Your task to perform on an android device: change keyboard looks Image 0: 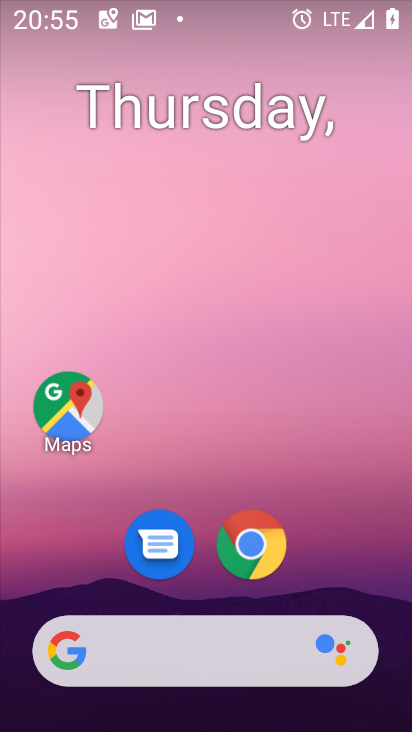
Step 0: drag from (205, 593) to (188, 142)
Your task to perform on an android device: change keyboard looks Image 1: 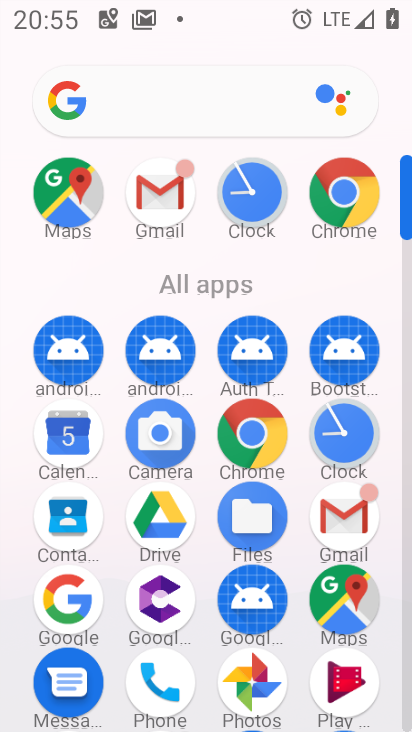
Step 1: drag from (205, 647) to (263, 140)
Your task to perform on an android device: change keyboard looks Image 2: 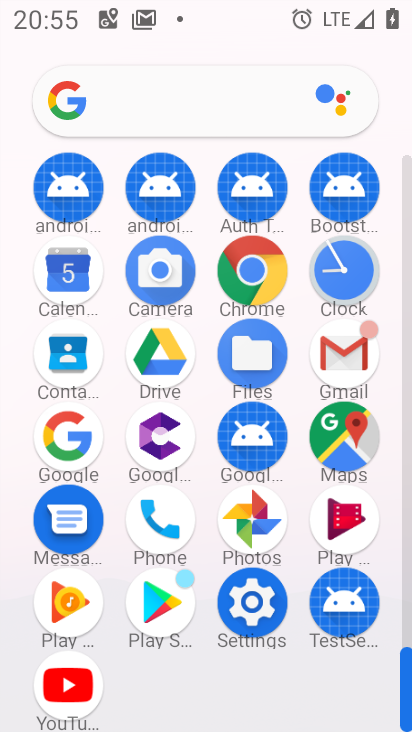
Step 2: click (227, 624)
Your task to perform on an android device: change keyboard looks Image 3: 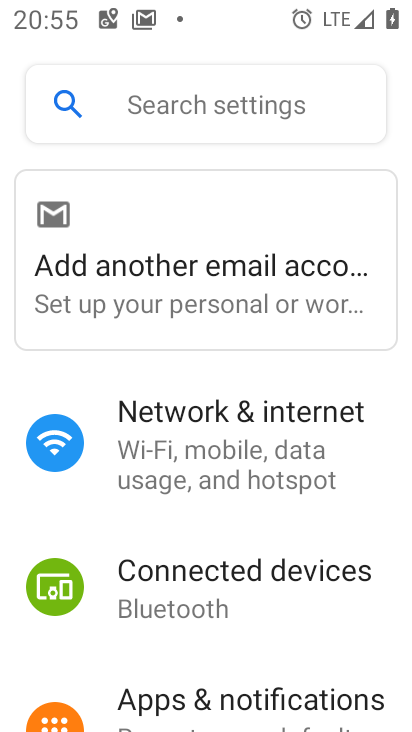
Step 3: drag from (210, 658) to (258, 95)
Your task to perform on an android device: change keyboard looks Image 4: 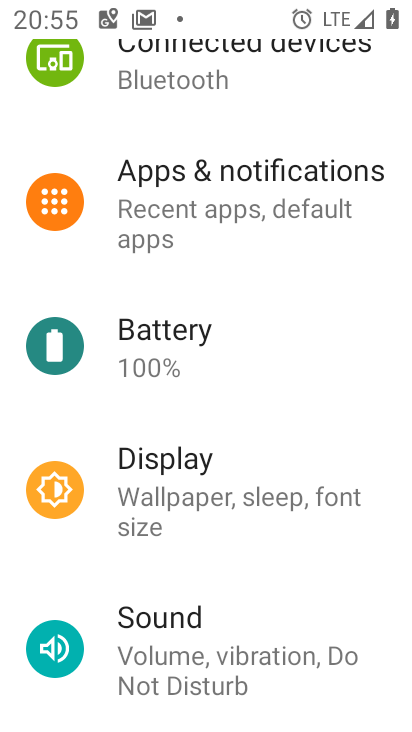
Step 4: drag from (122, 591) to (183, 235)
Your task to perform on an android device: change keyboard looks Image 5: 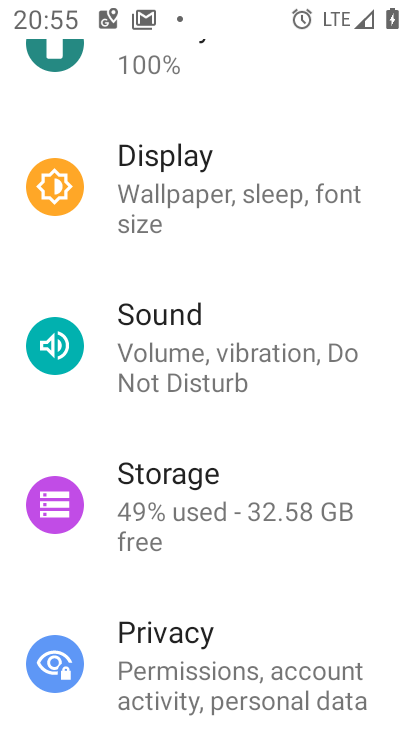
Step 5: drag from (121, 578) to (188, 237)
Your task to perform on an android device: change keyboard looks Image 6: 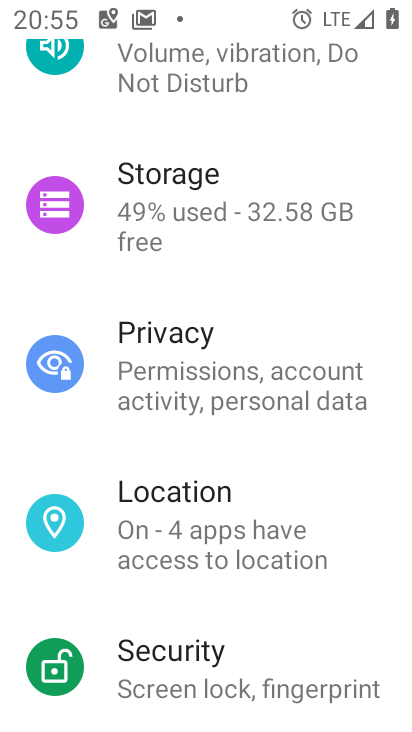
Step 6: drag from (147, 624) to (222, 266)
Your task to perform on an android device: change keyboard looks Image 7: 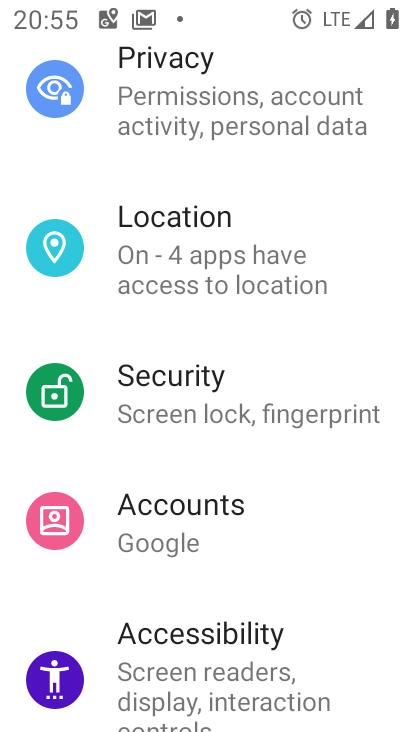
Step 7: drag from (136, 689) to (285, 187)
Your task to perform on an android device: change keyboard looks Image 8: 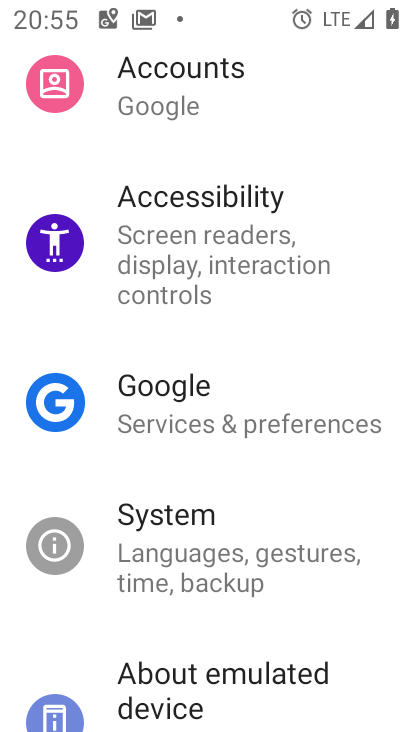
Step 8: drag from (23, 609) to (225, 161)
Your task to perform on an android device: change keyboard looks Image 9: 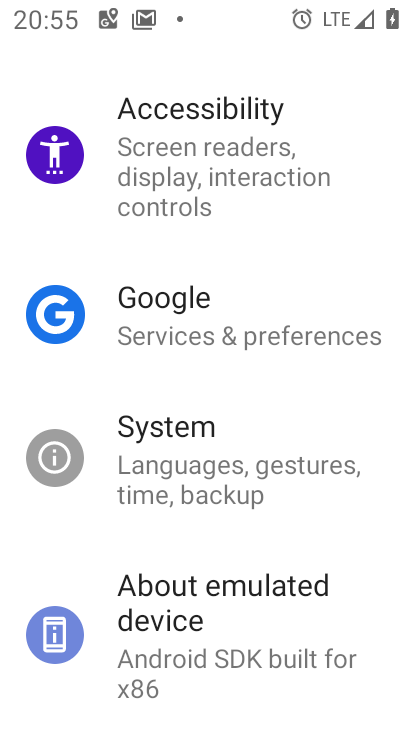
Step 9: click (152, 473)
Your task to perform on an android device: change keyboard looks Image 10: 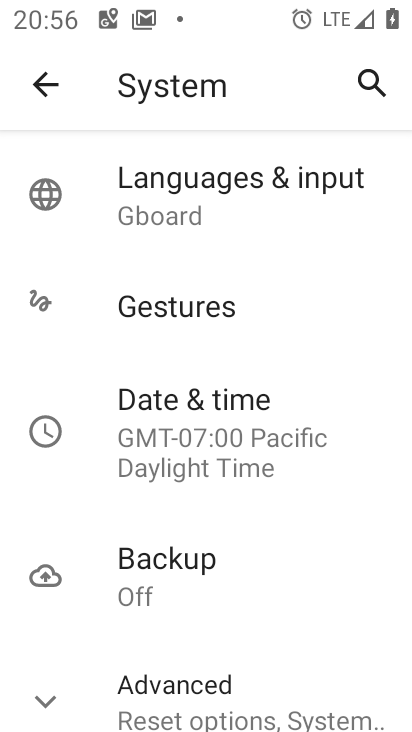
Step 10: click (226, 214)
Your task to perform on an android device: change keyboard looks Image 11: 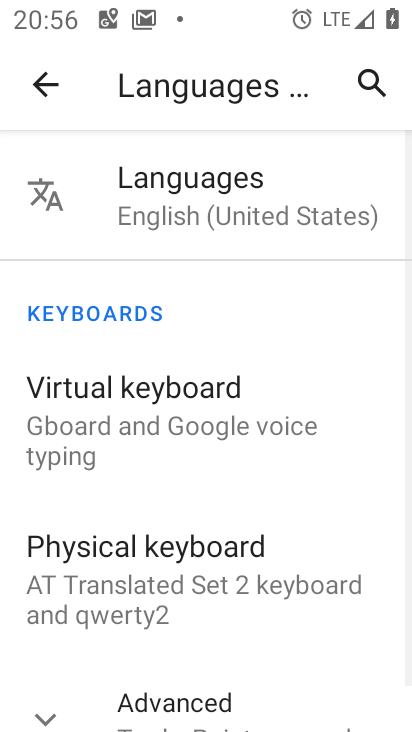
Step 11: click (157, 399)
Your task to perform on an android device: change keyboard looks Image 12: 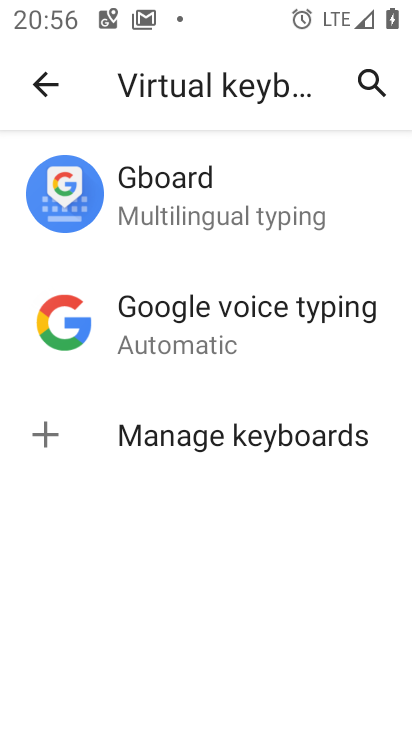
Step 12: click (194, 230)
Your task to perform on an android device: change keyboard looks Image 13: 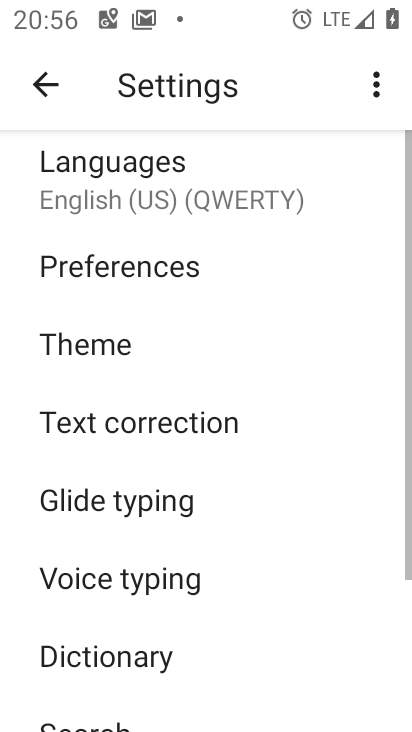
Step 13: click (138, 351)
Your task to perform on an android device: change keyboard looks Image 14: 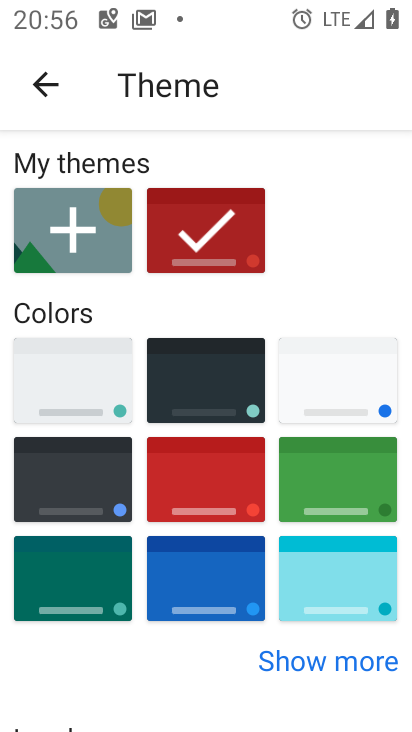
Step 14: click (296, 543)
Your task to perform on an android device: change keyboard looks Image 15: 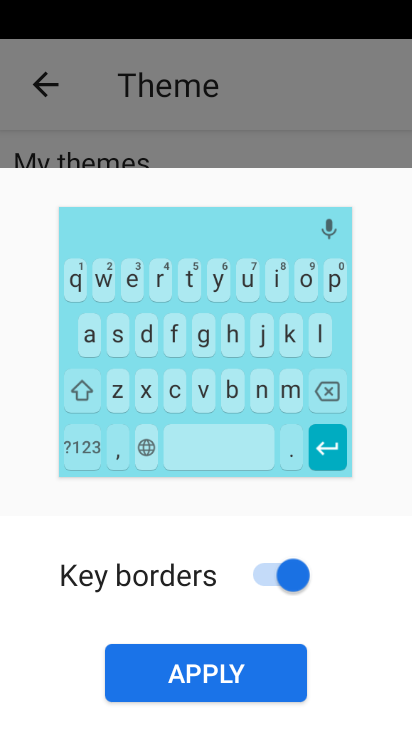
Step 15: click (222, 667)
Your task to perform on an android device: change keyboard looks Image 16: 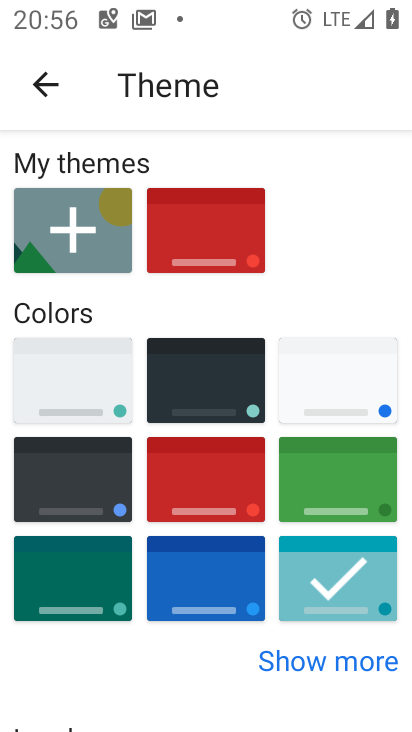
Step 16: task complete